Your task to perform on an android device: Search for "acer predator" on costco, select the first entry, add it to the cart, then select checkout. Image 0: 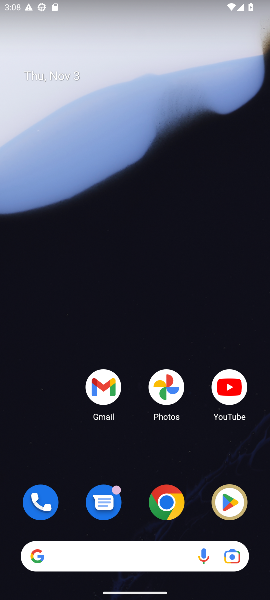
Step 0: drag from (142, 536) to (138, 320)
Your task to perform on an android device: Search for "acer predator" on costco, select the first entry, add it to the cart, then select checkout. Image 1: 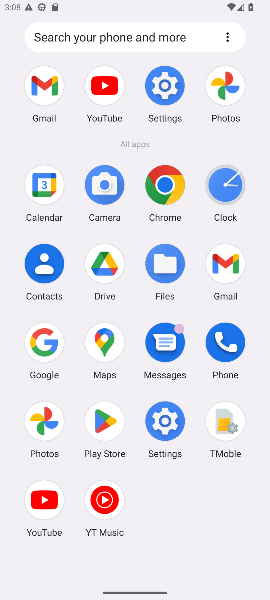
Step 1: click (35, 353)
Your task to perform on an android device: Search for "acer predator" on costco, select the first entry, add it to the cart, then select checkout. Image 2: 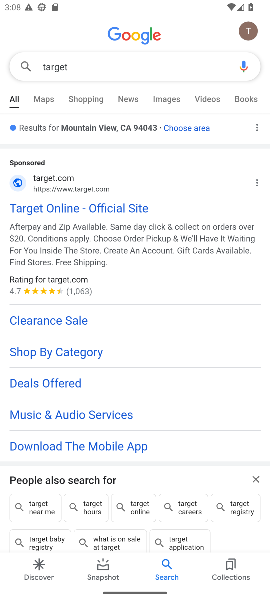
Step 2: click (153, 64)
Your task to perform on an android device: Search for "acer predator" on costco, select the first entry, add it to the cart, then select checkout. Image 3: 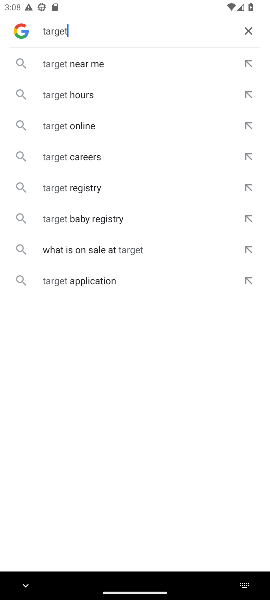
Step 3: click (247, 28)
Your task to perform on an android device: Search for "acer predator" on costco, select the first entry, add it to the cart, then select checkout. Image 4: 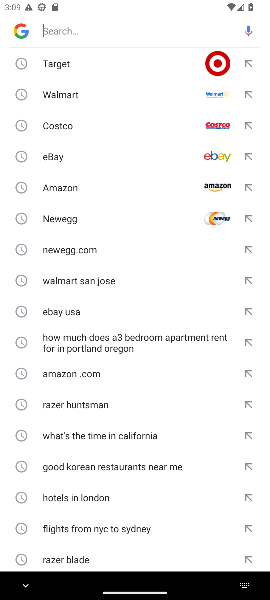
Step 4: type "costco"
Your task to perform on an android device: Search for "acer predator" on costco, select the first entry, add it to the cart, then select checkout. Image 5: 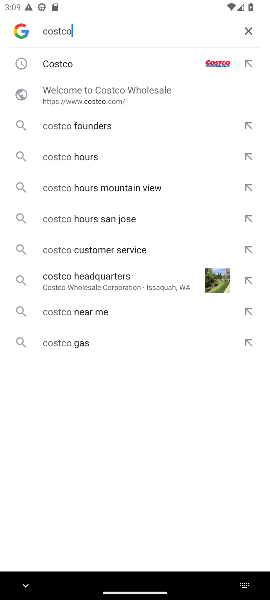
Step 5: click (107, 95)
Your task to perform on an android device: Search for "acer predator" on costco, select the first entry, add it to the cart, then select checkout. Image 6: 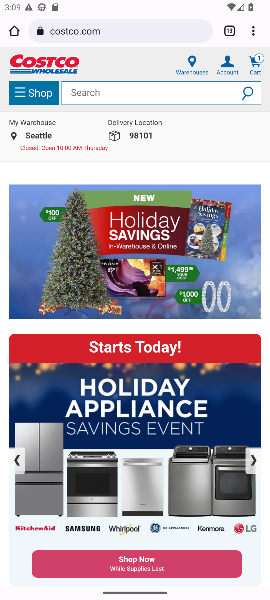
Step 6: click (87, 96)
Your task to perform on an android device: Search for "acer predator" on costco, select the first entry, add it to the cart, then select checkout. Image 7: 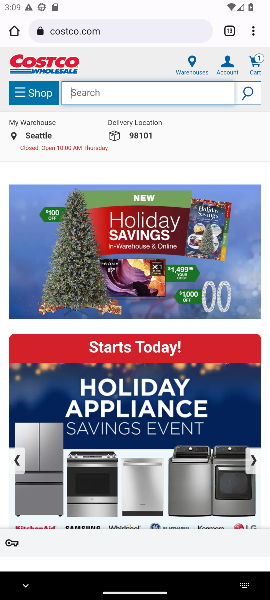
Step 7: type "acer predator"
Your task to perform on an android device: Search for "acer predator" on costco, select the first entry, add it to the cart, then select checkout. Image 8: 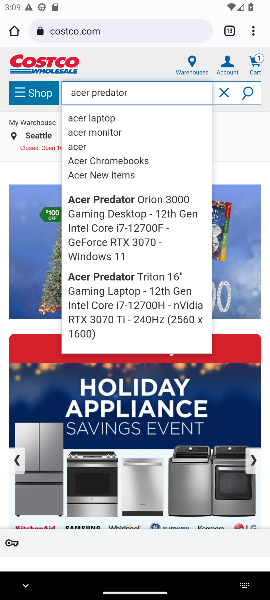
Step 8: click (160, 236)
Your task to perform on an android device: Search for "acer predator" on costco, select the first entry, add it to the cart, then select checkout. Image 9: 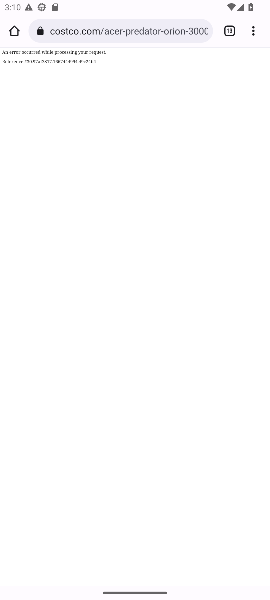
Step 9: task complete